Your task to perform on an android device: turn off picture-in-picture Image 0: 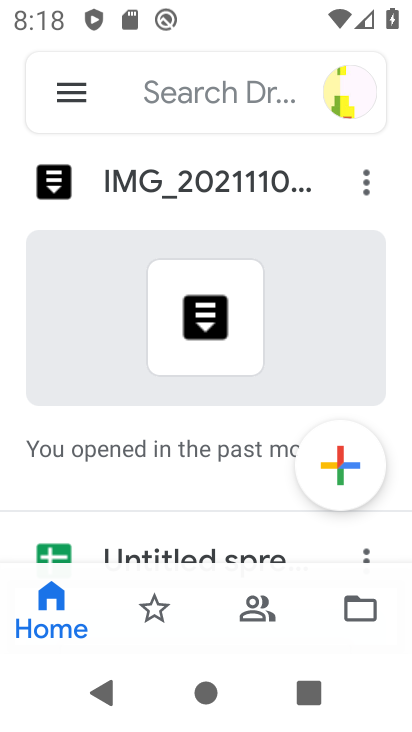
Step 0: press home button
Your task to perform on an android device: turn off picture-in-picture Image 1: 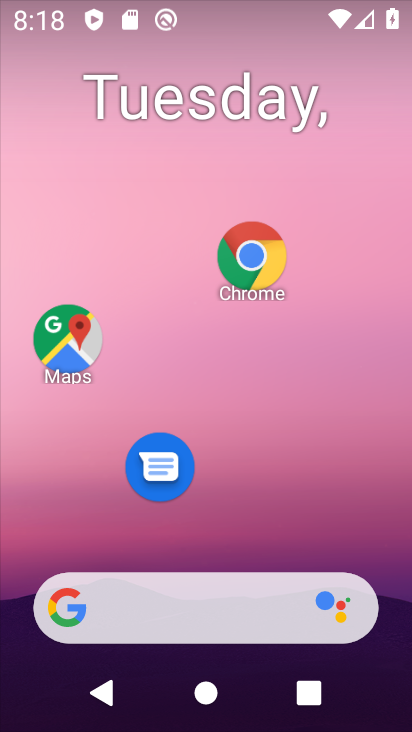
Step 1: click (255, 252)
Your task to perform on an android device: turn off picture-in-picture Image 2: 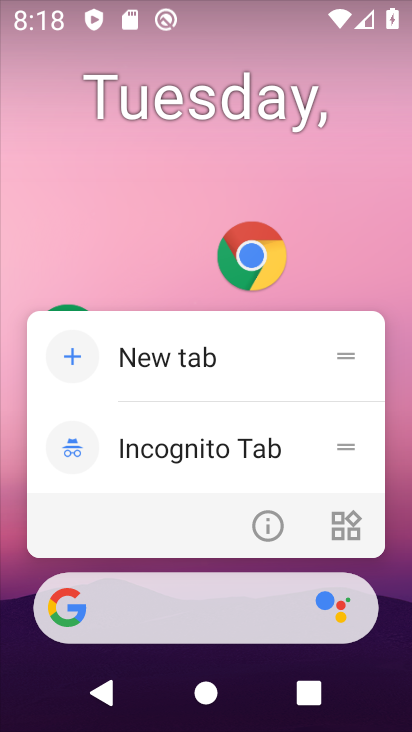
Step 2: click (279, 531)
Your task to perform on an android device: turn off picture-in-picture Image 3: 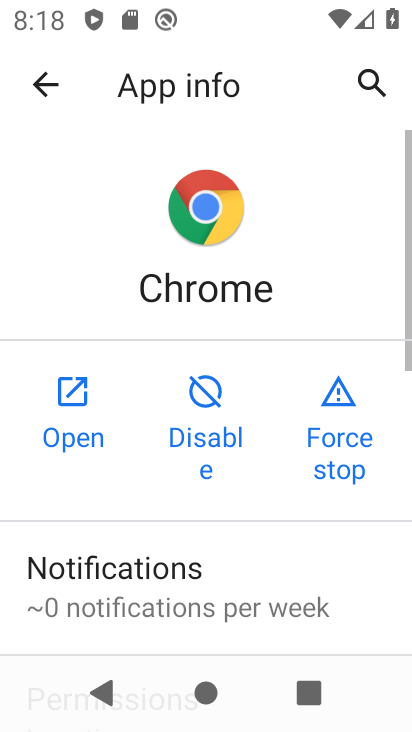
Step 3: drag from (272, 529) to (279, 138)
Your task to perform on an android device: turn off picture-in-picture Image 4: 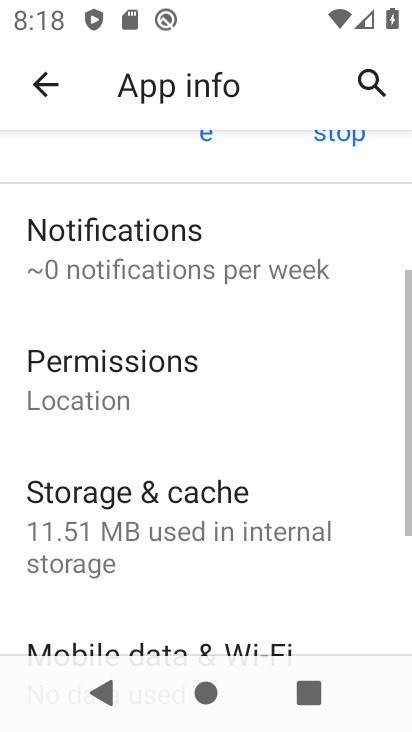
Step 4: drag from (241, 546) to (222, 84)
Your task to perform on an android device: turn off picture-in-picture Image 5: 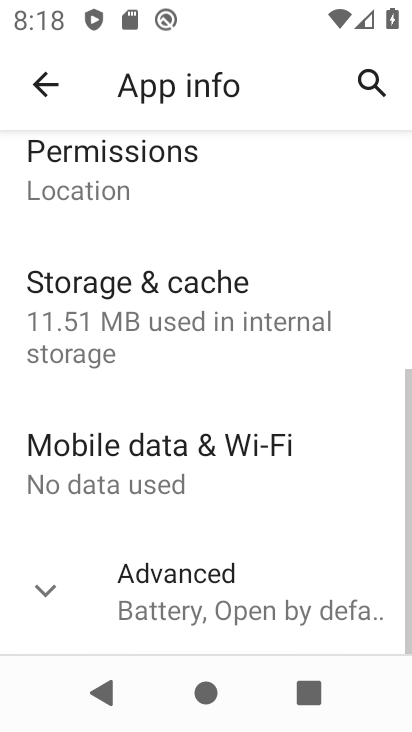
Step 5: click (164, 582)
Your task to perform on an android device: turn off picture-in-picture Image 6: 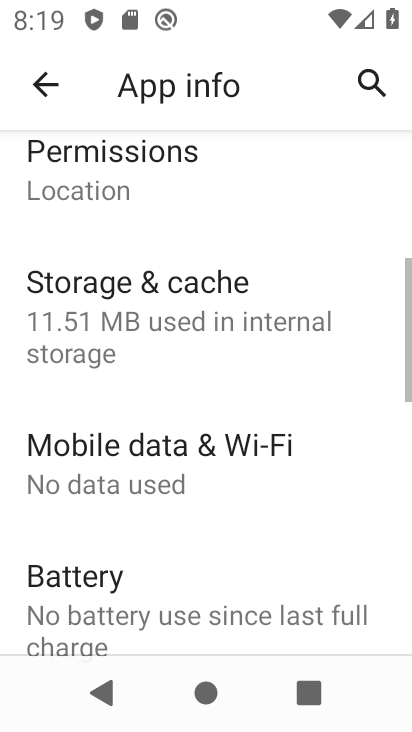
Step 6: drag from (227, 512) to (255, 104)
Your task to perform on an android device: turn off picture-in-picture Image 7: 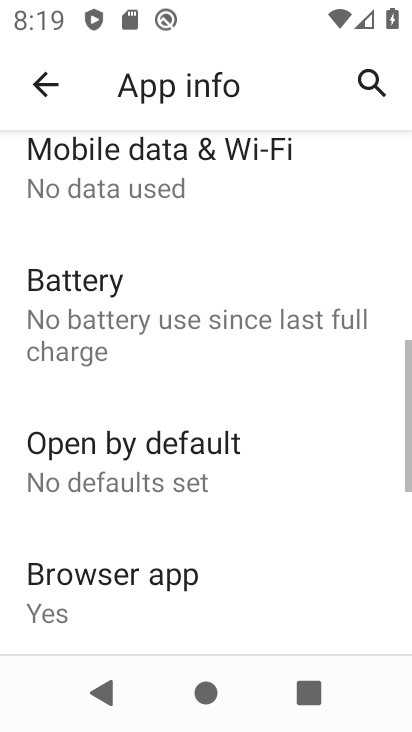
Step 7: drag from (216, 588) to (240, 185)
Your task to perform on an android device: turn off picture-in-picture Image 8: 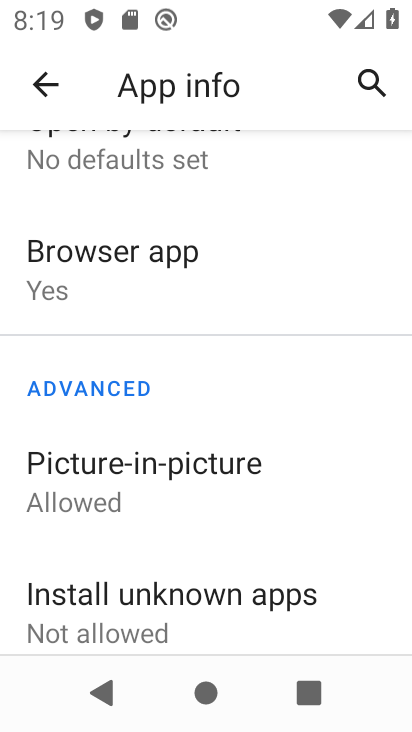
Step 8: click (190, 477)
Your task to perform on an android device: turn off picture-in-picture Image 9: 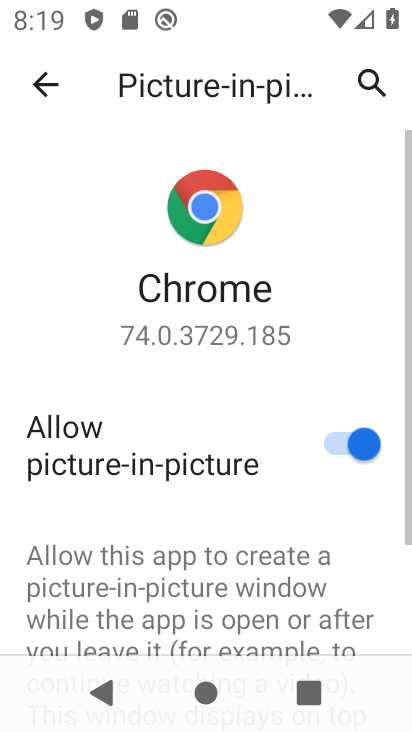
Step 9: click (347, 449)
Your task to perform on an android device: turn off picture-in-picture Image 10: 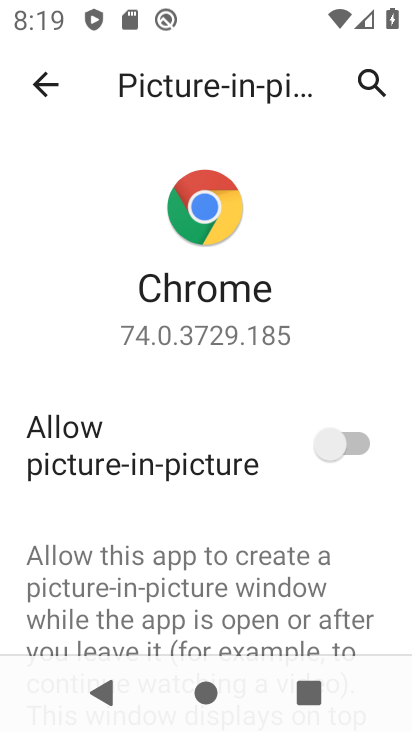
Step 10: task complete